Your task to perform on an android device: change notifications settings Image 0: 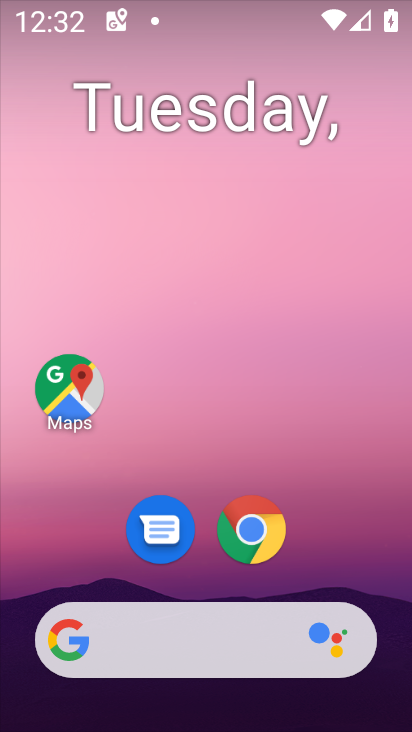
Step 0: drag from (186, 553) to (256, 30)
Your task to perform on an android device: change notifications settings Image 1: 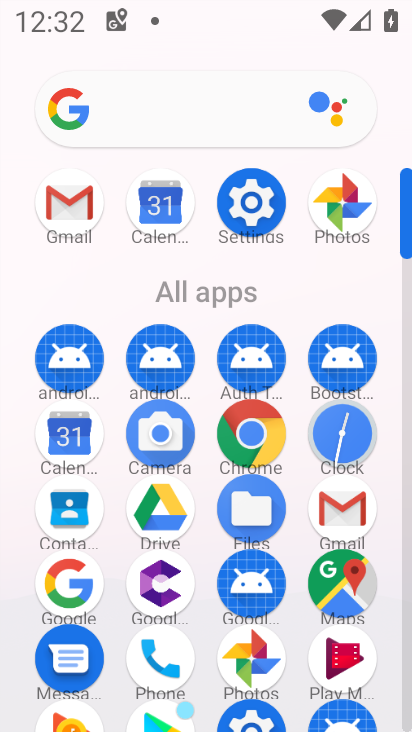
Step 1: click (249, 194)
Your task to perform on an android device: change notifications settings Image 2: 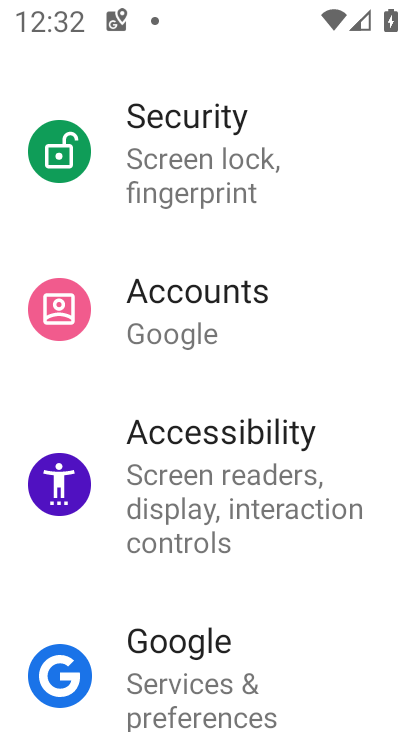
Step 2: drag from (254, 195) to (214, 669)
Your task to perform on an android device: change notifications settings Image 3: 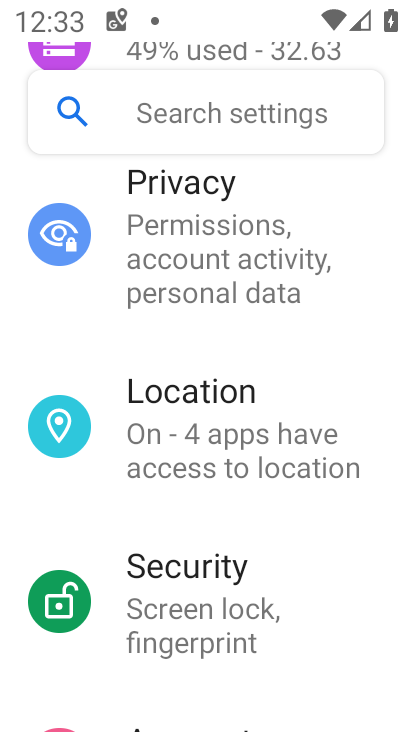
Step 3: drag from (265, 307) to (212, 720)
Your task to perform on an android device: change notifications settings Image 4: 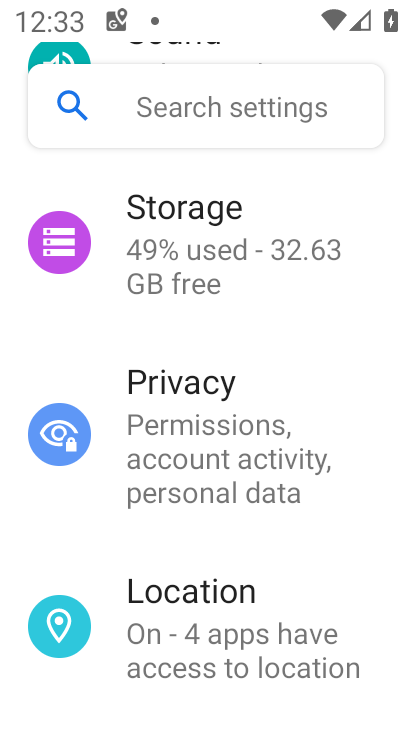
Step 4: drag from (216, 261) to (153, 685)
Your task to perform on an android device: change notifications settings Image 5: 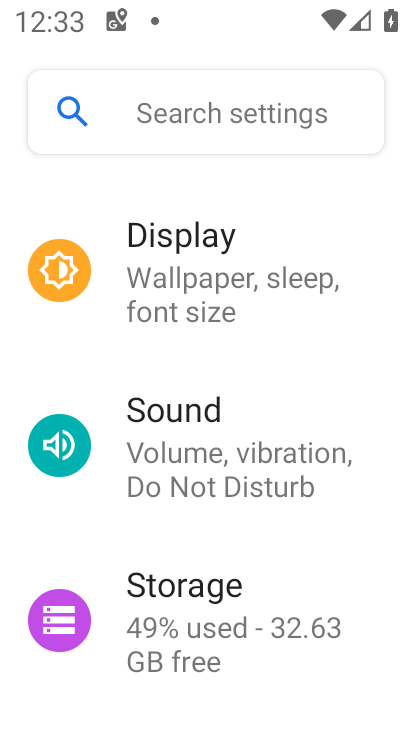
Step 5: drag from (217, 217) to (184, 689)
Your task to perform on an android device: change notifications settings Image 6: 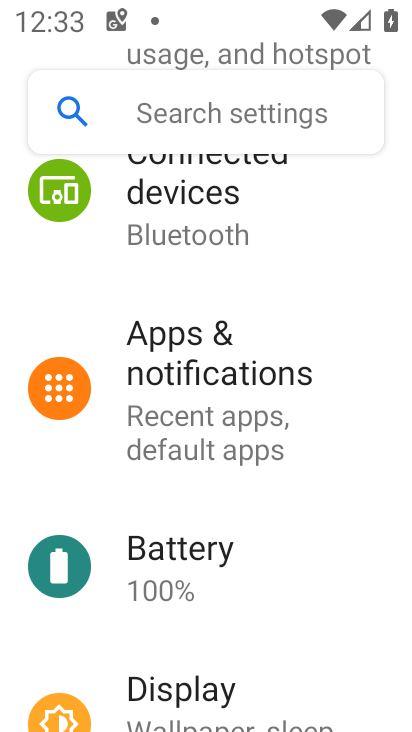
Step 6: click (195, 360)
Your task to perform on an android device: change notifications settings Image 7: 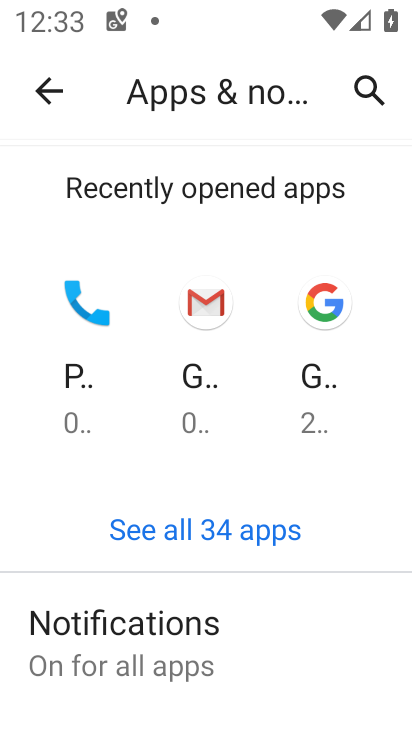
Step 7: click (173, 658)
Your task to perform on an android device: change notifications settings Image 8: 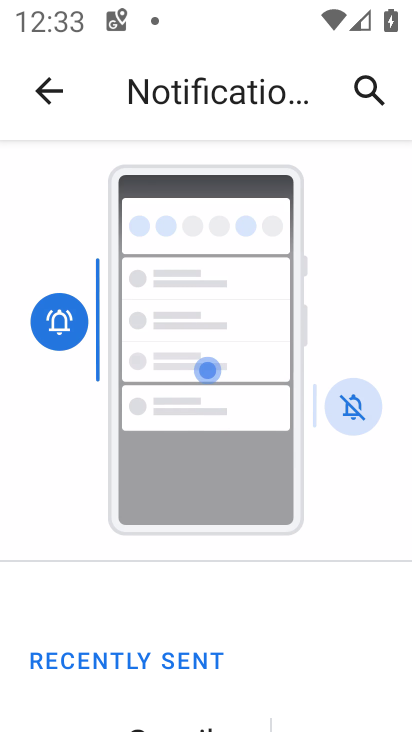
Step 8: drag from (194, 665) to (155, 131)
Your task to perform on an android device: change notifications settings Image 9: 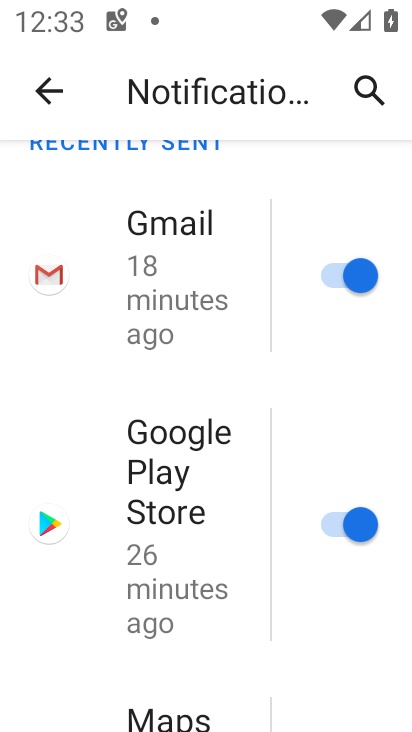
Step 9: drag from (139, 685) to (144, 171)
Your task to perform on an android device: change notifications settings Image 10: 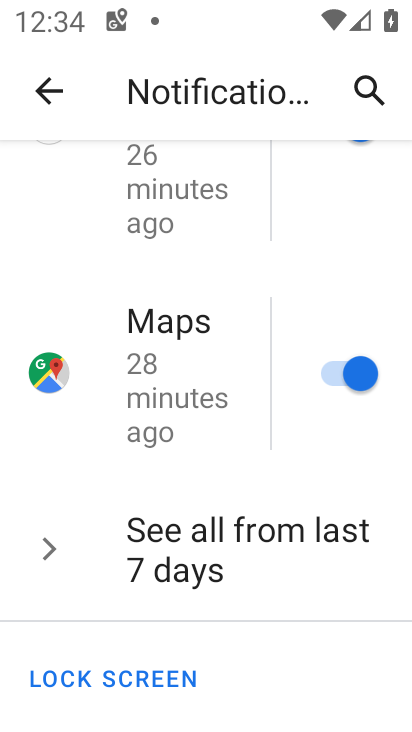
Step 10: drag from (214, 613) to (201, 245)
Your task to perform on an android device: change notifications settings Image 11: 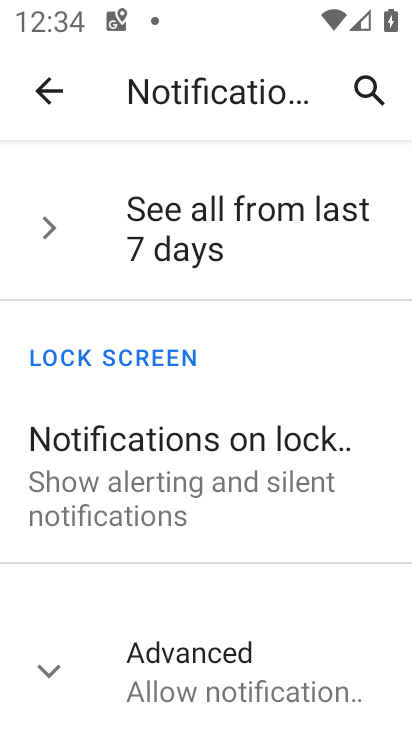
Step 11: drag from (196, 619) to (194, 222)
Your task to perform on an android device: change notifications settings Image 12: 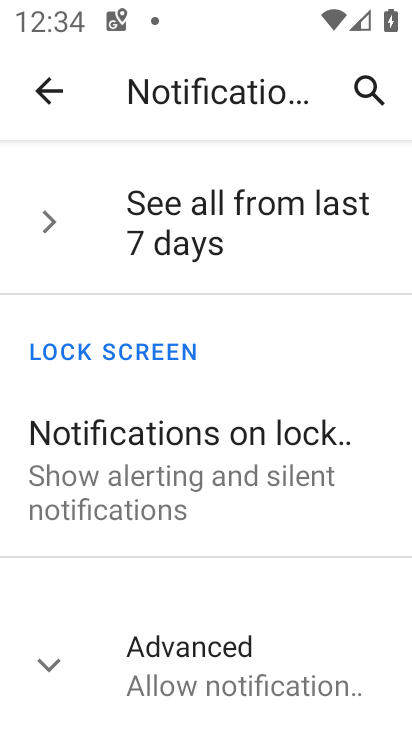
Step 12: click (226, 654)
Your task to perform on an android device: change notifications settings Image 13: 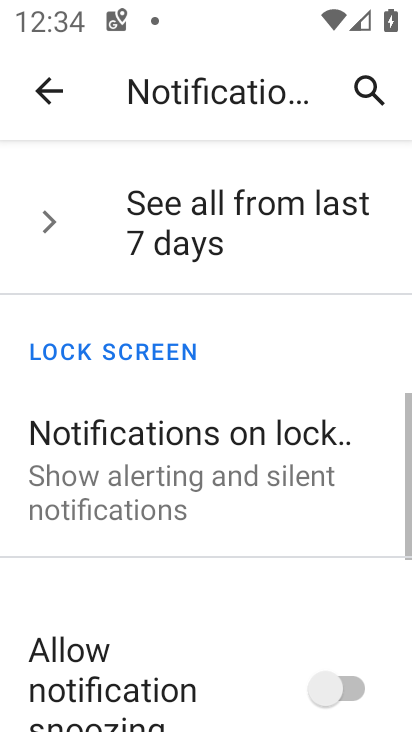
Step 13: drag from (223, 637) to (193, 134)
Your task to perform on an android device: change notifications settings Image 14: 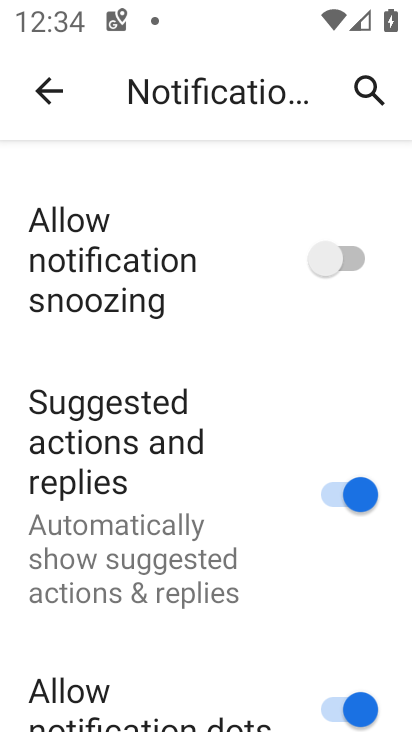
Step 14: click (333, 256)
Your task to perform on an android device: change notifications settings Image 15: 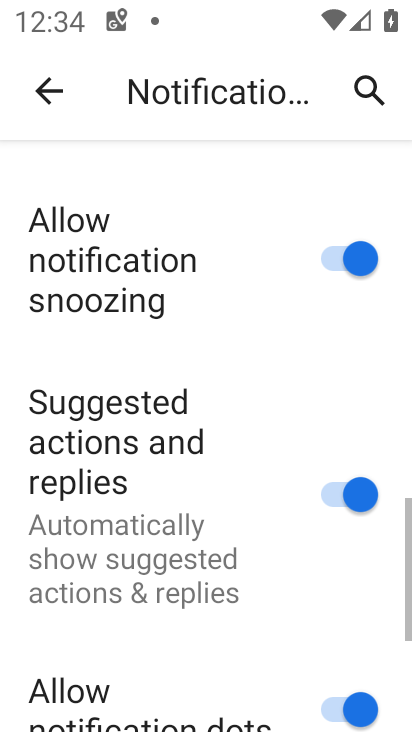
Step 15: task complete